Your task to perform on an android device: turn off improve location accuracy Image 0: 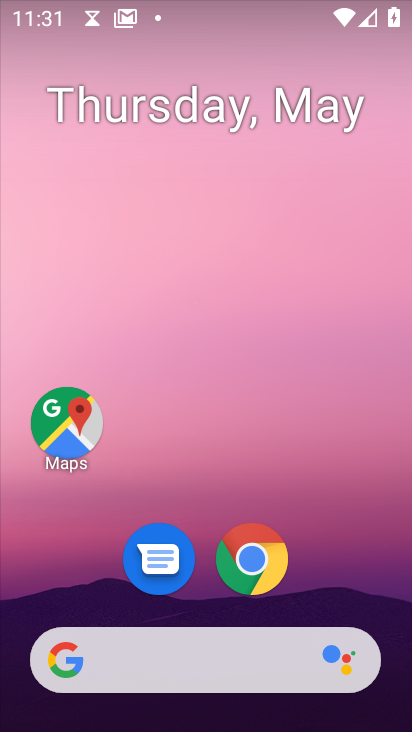
Step 0: drag from (216, 730) to (212, 223)
Your task to perform on an android device: turn off improve location accuracy Image 1: 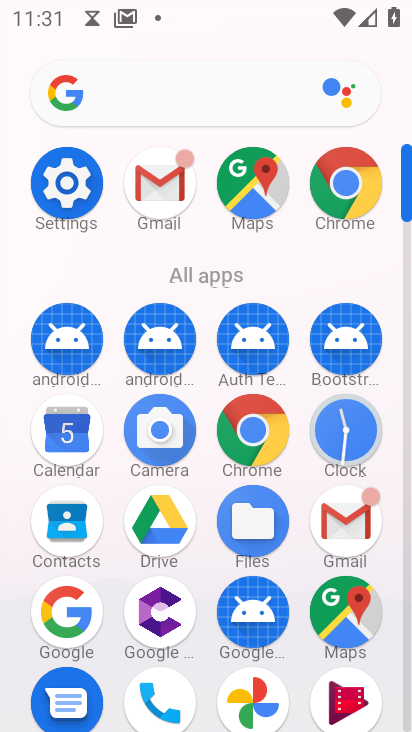
Step 1: click (76, 183)
Your task to perform on an android device: turn off improve location accuracy Image 2: 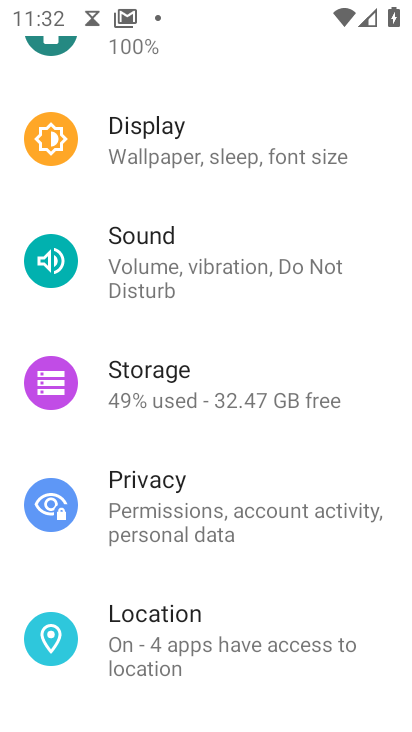
Step 2: click (169, 624)
Your task to perform on an android device: turn off improve location accuracy Image 3: 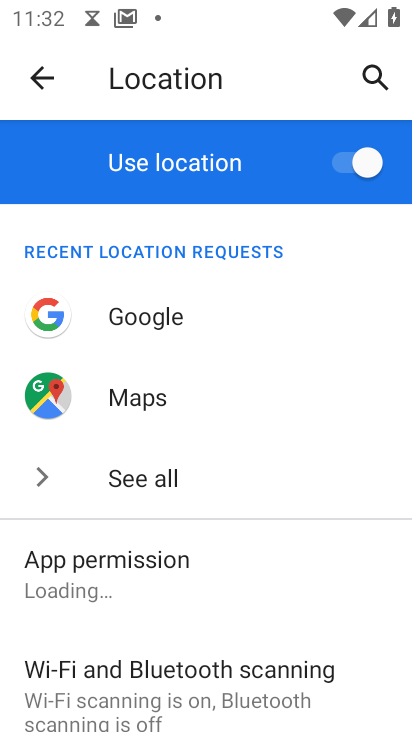
Step 3: drag from (149, 687) to (144, 292)
Your task to perform on an android device: turn off improve location accuracy Image 4: 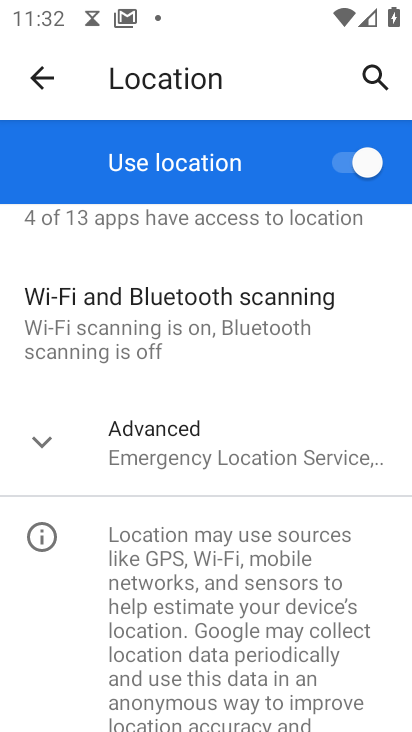
Step 4: click (167, 443)
Your task to perform on an android device: turn off improve location accuracy Image 5: 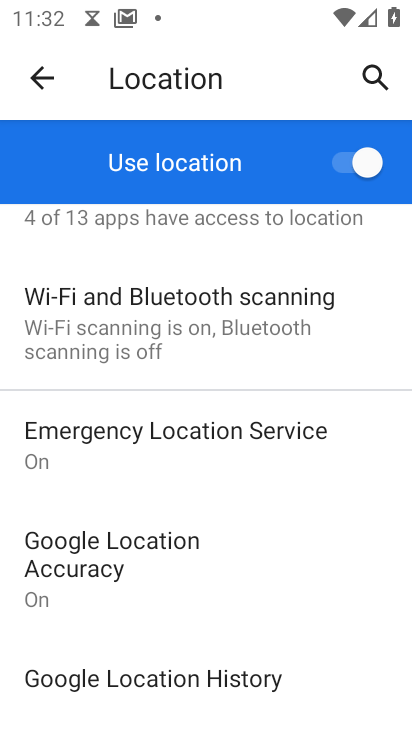
Step 5: click (120, 543)
Your task to perform on an android device: turn off improve location accuracy Image 6: 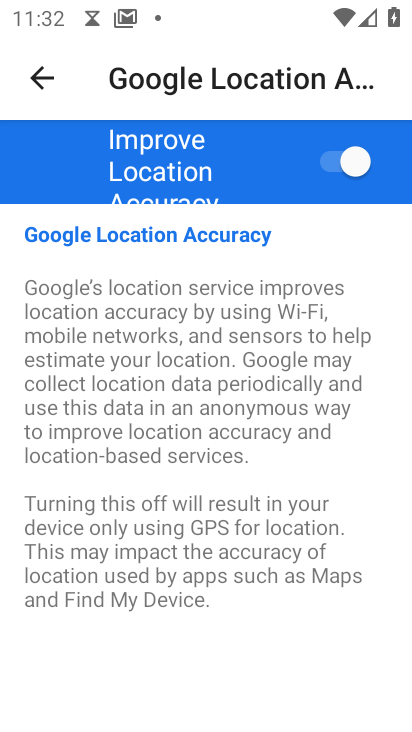
Step 6: click (330, 165)
Your task to perform on an android device: turn off improve location accuracy Image 7: 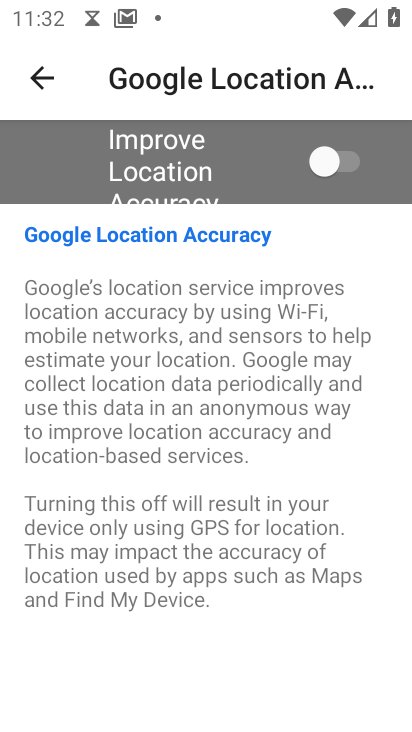
Step 7: task complete